Your task to perform on an android device: add a contact in the contacts app Image 0: 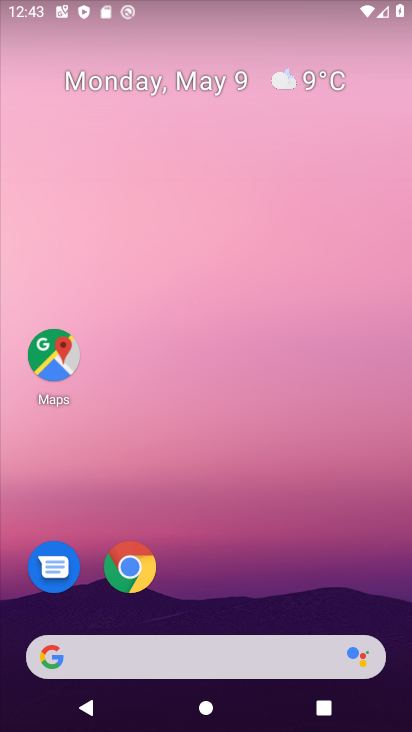
Step 0: drag from (278, 682) to (228, 291)
Your task to perform on an android device: add a contact in the contacts app Image 1: 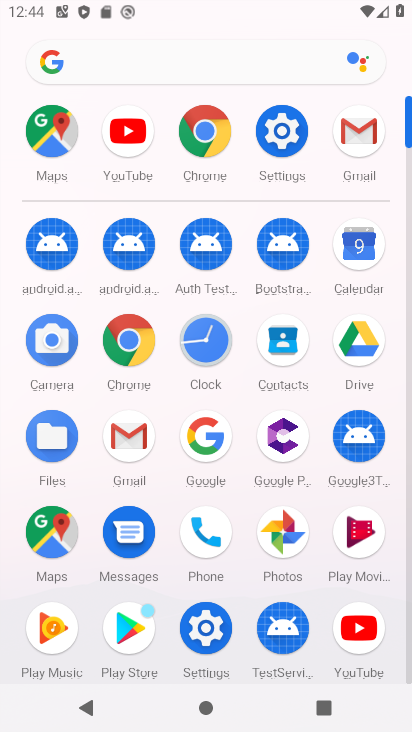
Step 1: click (213, 544)
Your task to perform on an android device: add a contact in the contacts app Image 2: 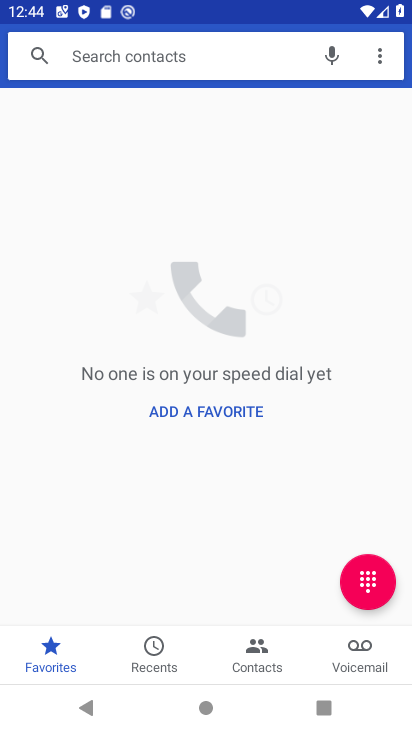
Step 2: click (248, 657)
Your task to perform on an android device: add a contact in the contacts app Image 3: 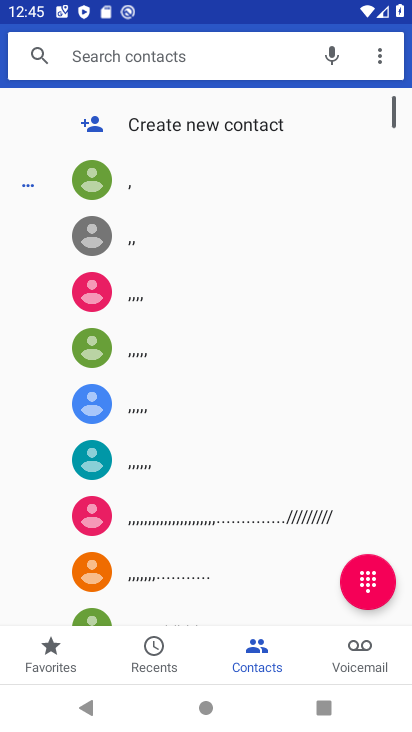
Step 3: click (231, 133)
Your task to perform on an android device: add a contact in the contacts app Image 4: 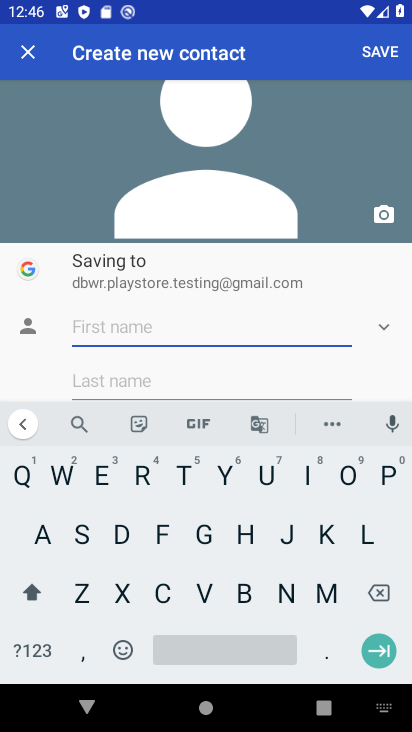
Step 4: click (211, 551)
Your task to perform on an android device: add a contact in the contacts app Image 5: 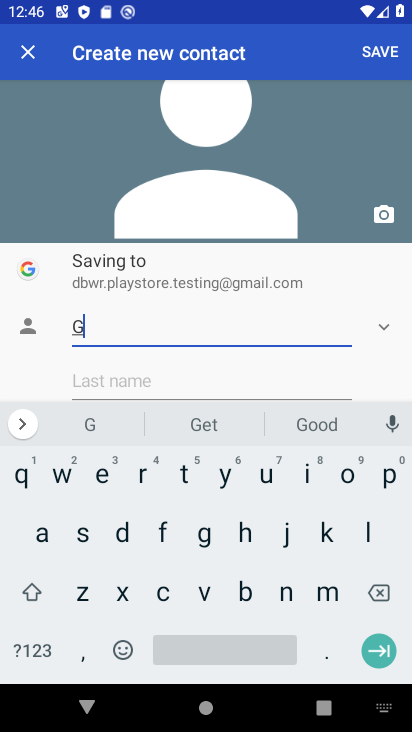
Step 5: click (256, 594)
Your task to perform on an android device: add a contact in the contacts app Image 6: 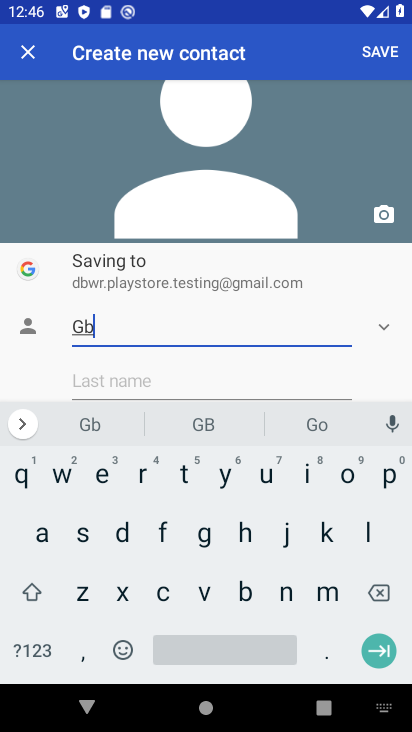
Step 6: click (370, 468)
Your task to perform on an android device: add a contact in the contacts app Image 7: 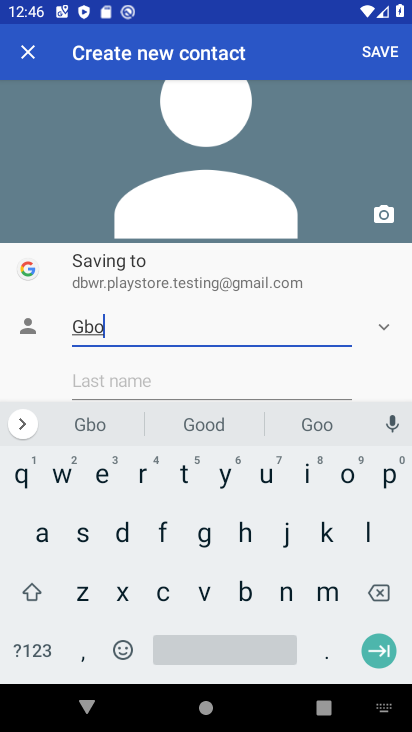
Step 7: drag from (255, 361) to (278, 277)
Your task to perform on an android device: add a contact in the contacts app Image 8: 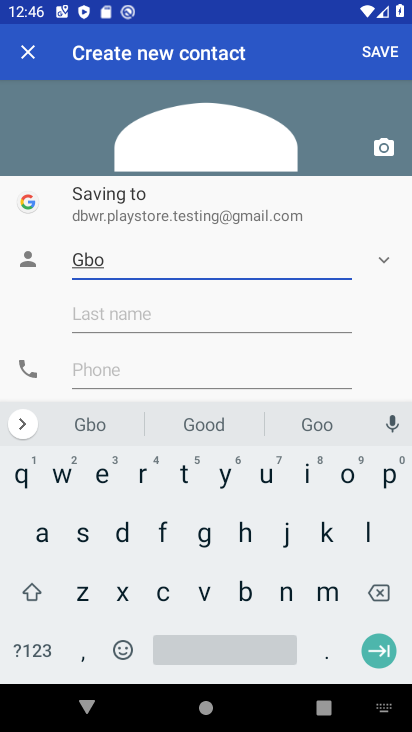
Step 8: click (160, 359)
Your task to perform on an android device: add a contact in the contacts app Image 9: 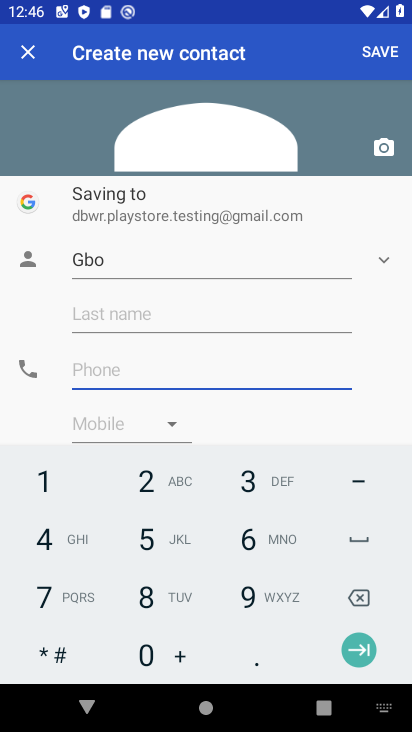
Step 9: click (149, 594)
Your task to perform on an android device: add a contact in the contacts app Image 10: 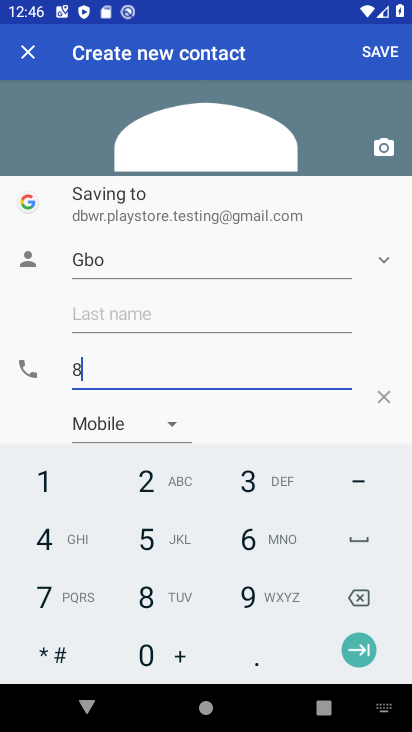
Step 10: click (241, 584)
Your task to perform on an android device: add a contact in the contacts app Image 11: 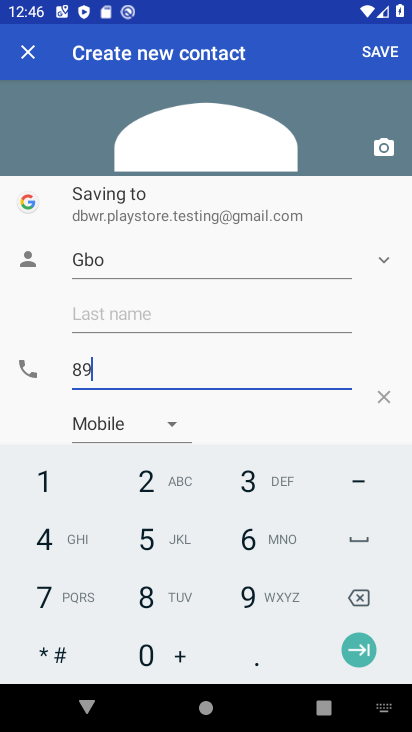
Step 11: click (161, 530)
Your task to perform on an android device: add a contact in the contacts app Image 12: 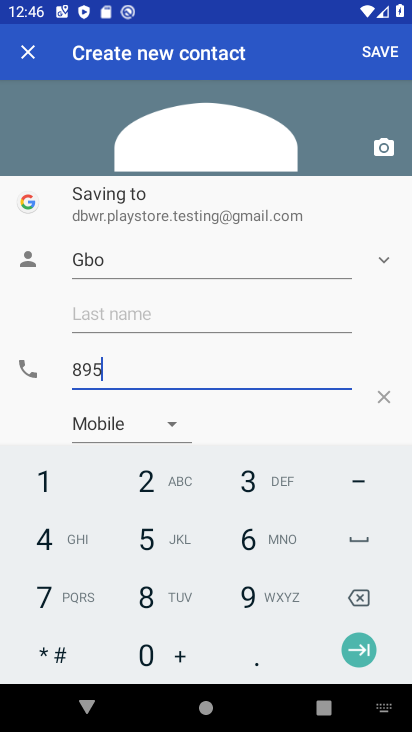
Step 12: click (243, 540)
Your task to perform on an android device: add a contact in the contacts app Image 13: 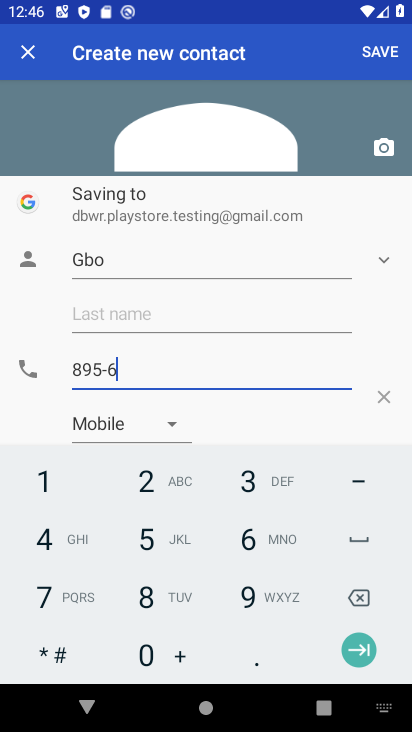
Step 13: click (168, 481)
Your task to perform on an android device: add a contact in the contacts app Image 14: 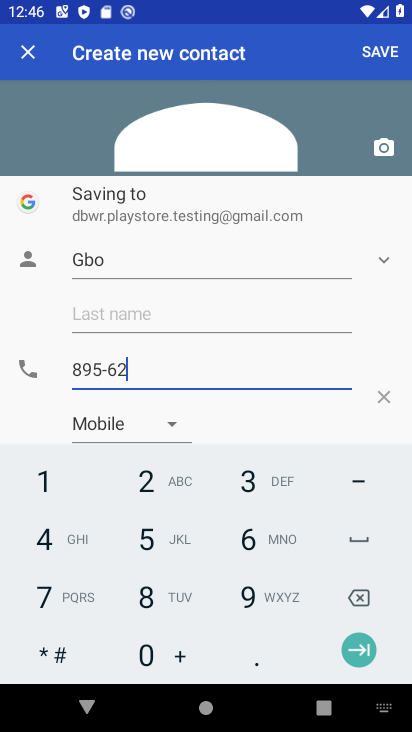
Step 14: click (60, 554)
Your task to perform on an android device: add a contact in the contacts app Image 15: 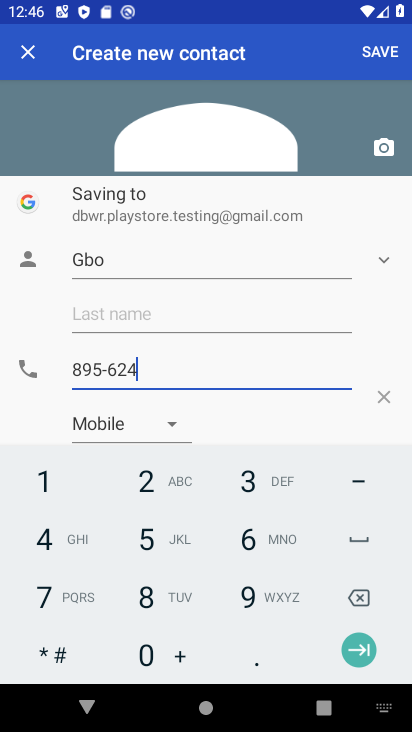
Step 15: click (46, 595)
Your task to perform on an android device: add a contact in the contacts app Image 16: 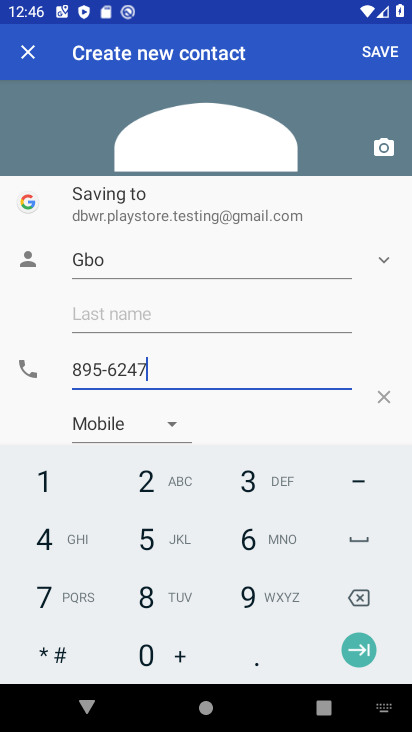
Step 16: click (272, 533)
Your task to perform on an android device: add a contact in the contacts app Image 17: 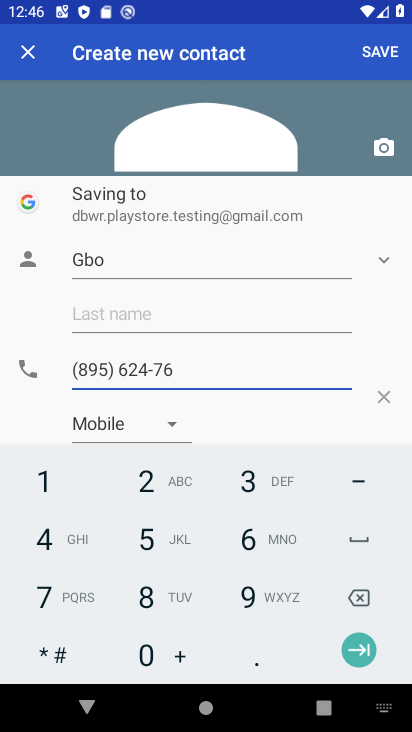
Step 17: click (378, 62)
Your task to perform on an android device: add a contact in the contacts app Image 18: 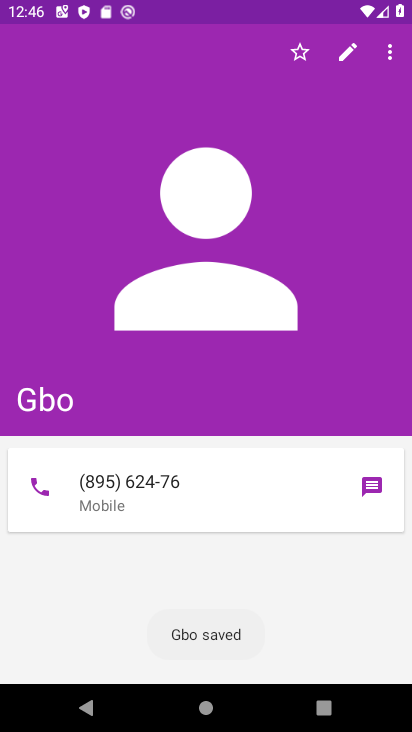
Step 18: task complete